Your task to perform on an android device: turn on data saver in the chrome app Image 0: 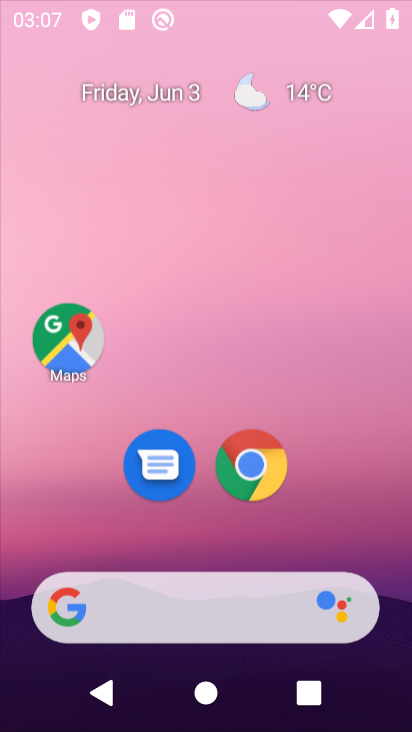
Step 0: press home button
Your task to perform on an android device: turn on data saver in the chrome app Image 1: 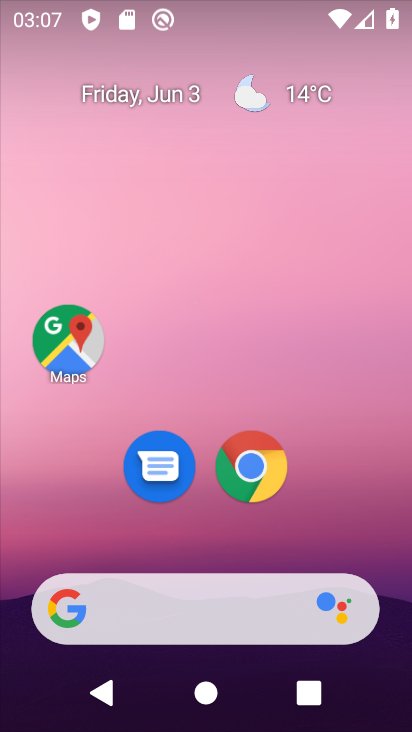
Step 1: click (246, 461)
Your task to perform on an android device: turn on data saver in the chrome app Image 2: 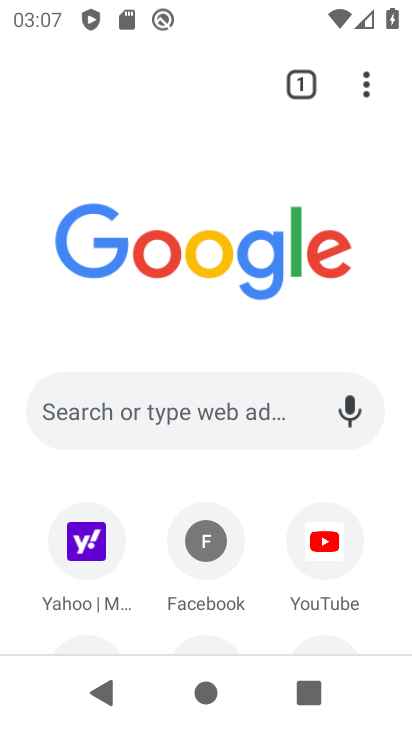
Step 2: click (366, 78)
Your task to perform on an android device: turn on data saver in the chrome app Image 3: 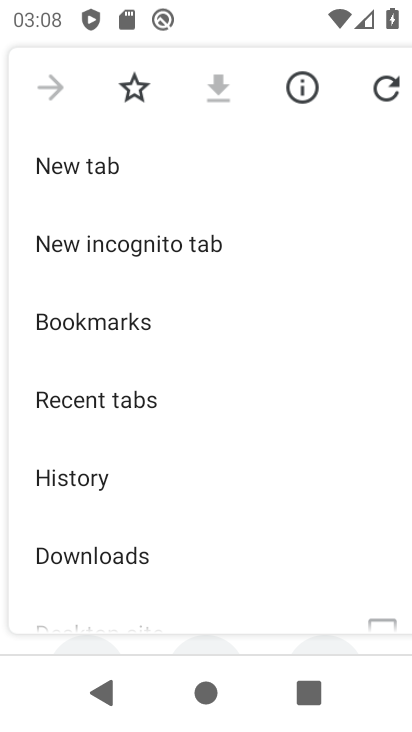
Step 3: drag from (188, 553) to (265, 87)
Your task to perform on an android device: turn on data saver in the chrome app Image 4: 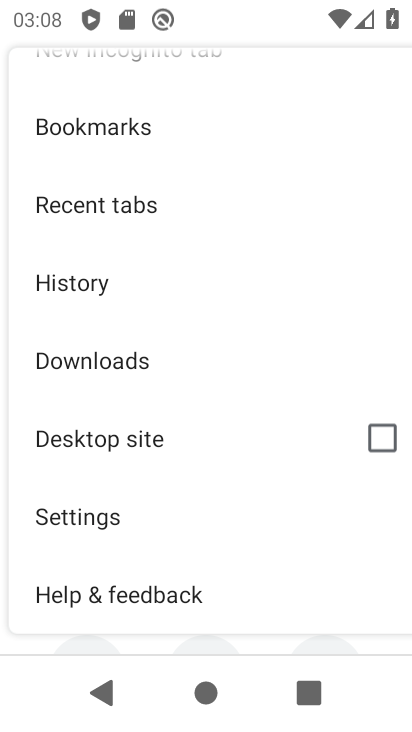
Step 4: click (141, 513)
Your task to perform on an android device: turn on data saver in the chrome app Image 5: 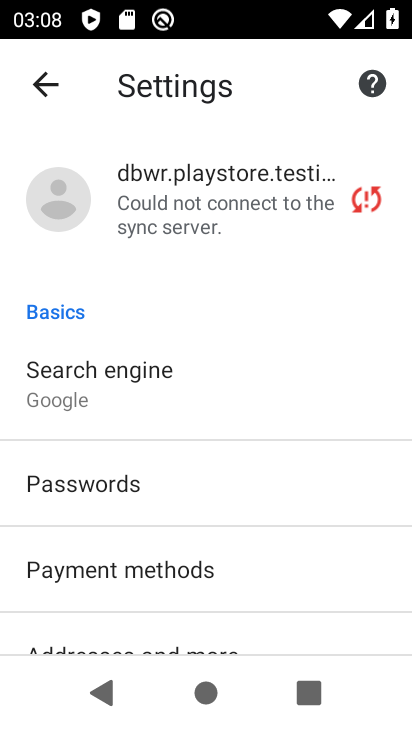
Step 5: drag from (258, 614) to (294, 91)
Your task to perform on an android device: turn on data saver in the chrome app Image 6: 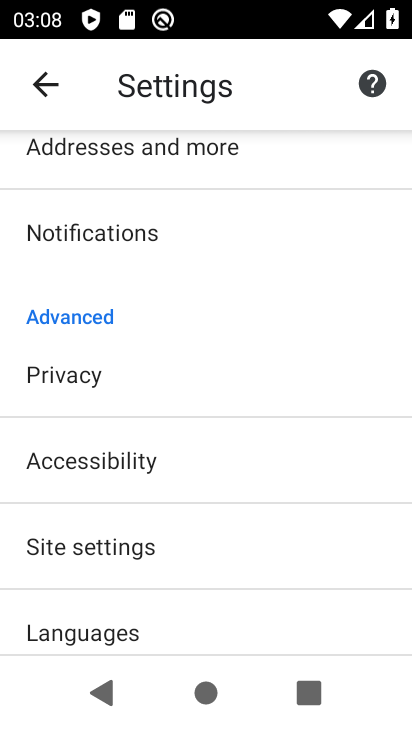
Step 6: drag from (214, 610) to (224, 140)
Your task to perform on an android device: turn on data saver in the chrome app Image 7: 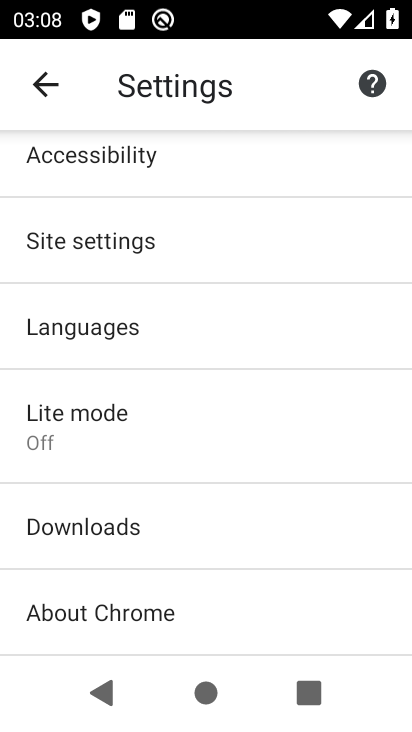
Step 7: click (94, 420)
Your task to perform on an android device: turn on data saver in the chrome app Image 8: 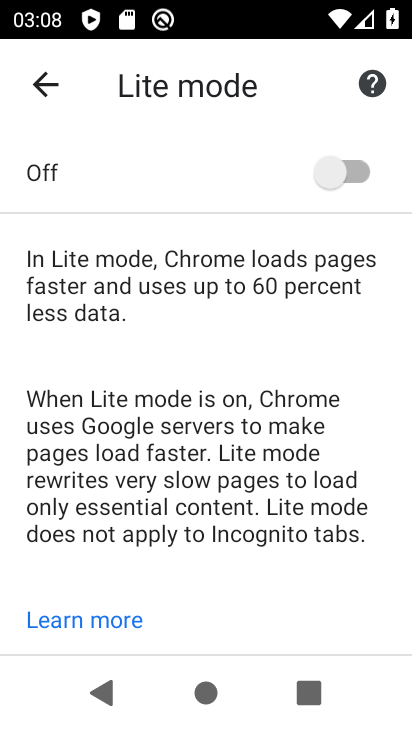
Step 8: click (356, 166)
Your task to perform on an android device: turn on data saver in the chrome app Image 9: 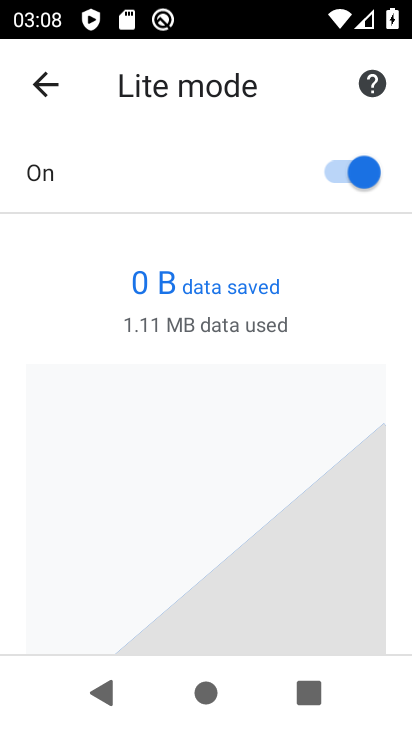
Step 9: task complete